Your task to perform on an android device: Open Youtube and go to the subscriptions tab Image 0: 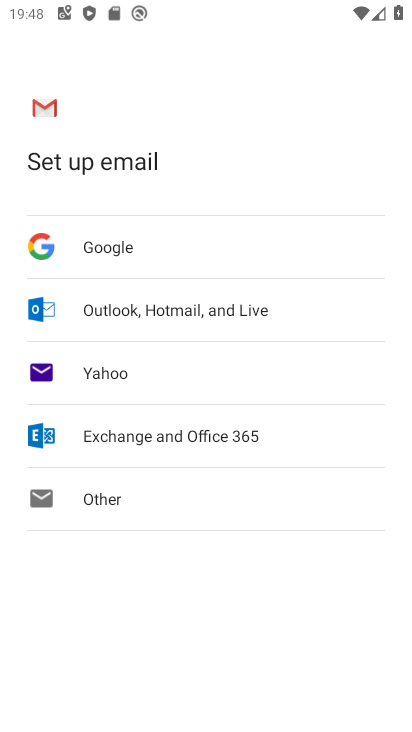
Step 0: press home button
Your task to perform on an android device: Open Youtube and go to the subscriptions tab Image 1: 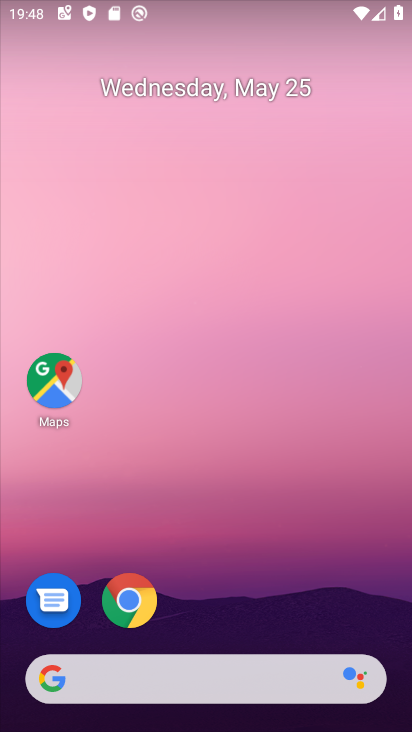
Step 1: drag from (386, 593) to (354, 127)
Your task to perform on an android device: Open Youtube and go to the subscriptions tab Image 2: 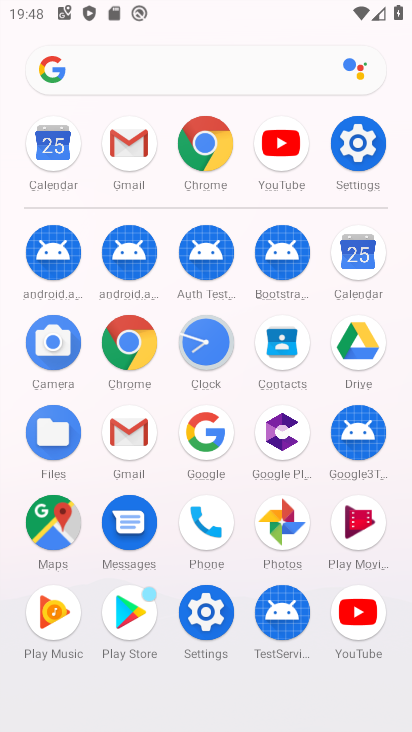
Step 2: click (351, 622)
Your task to perform on an android device: Open Youtube and go to the subscriptions tab Image 3: 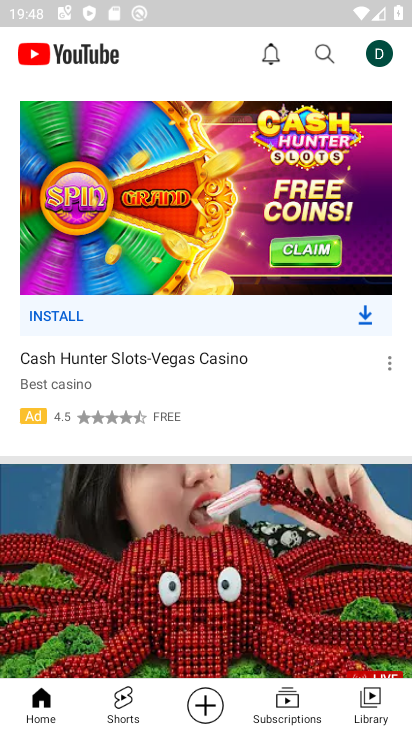
Step 3: click (294, 707)
Your task to perform on an android device: Open Youtube and go to the subscriptions tab Image 4: 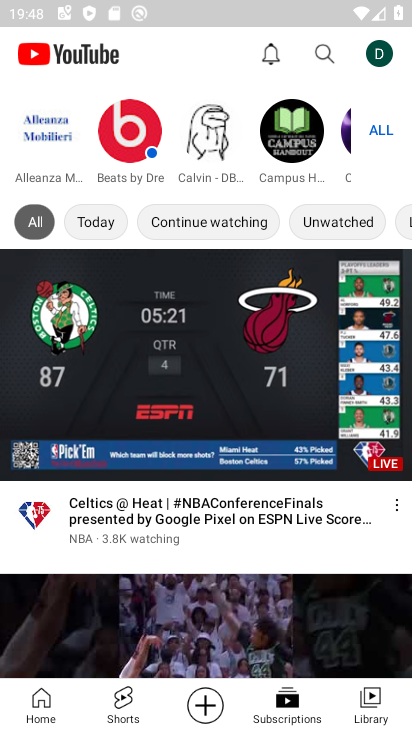
Step 4: task complete